Your task to perform on an android device: Open Google Chrome and open the bookmarks view Image 0: 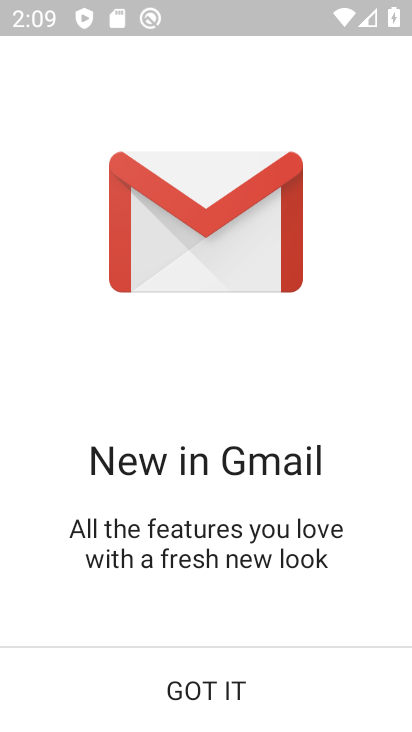
Step 0: click (204, 686)
Your task to perform on an android device: Open Google Chrome and open the bookmarks view Image 1: 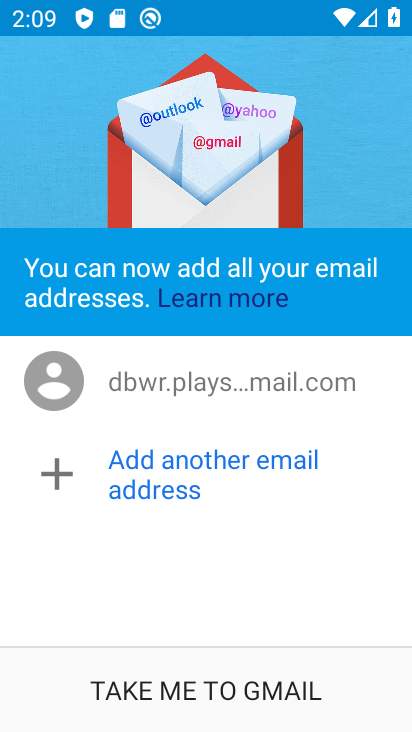
Step 1: click (225, 705)
Your task to perform on an android device: Open Google Chrome and open the bookmarks view Image 2: 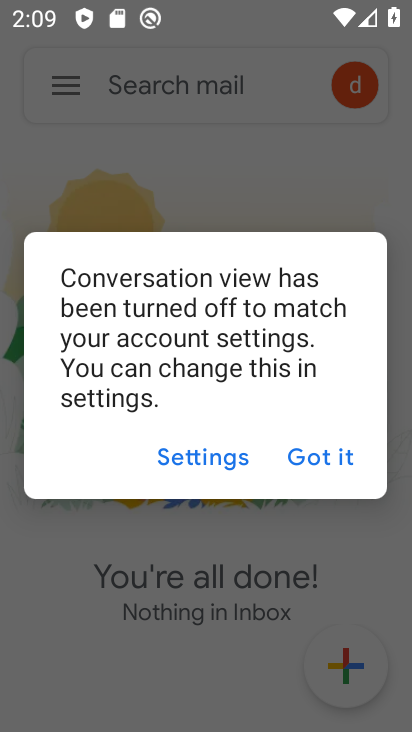
Step 2: click (306, 456)
Your task to perform on an android device: Open Google Chrome and open the bookmarks view Image 3: 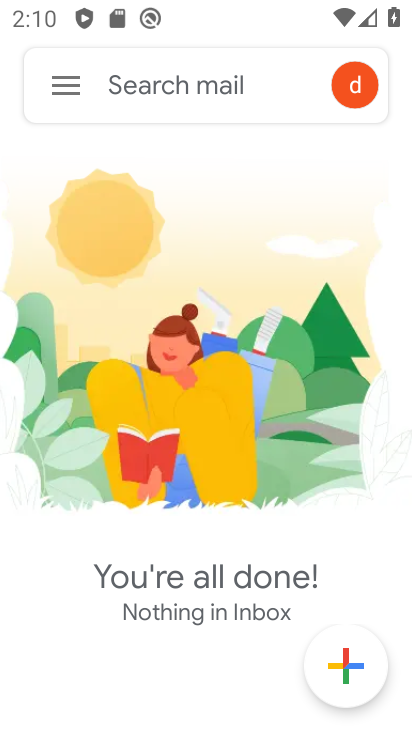
Step 3: click (76, 83)
Your task to perform on an android device: Open Google Chrome and open the bookmarks view Image 4: 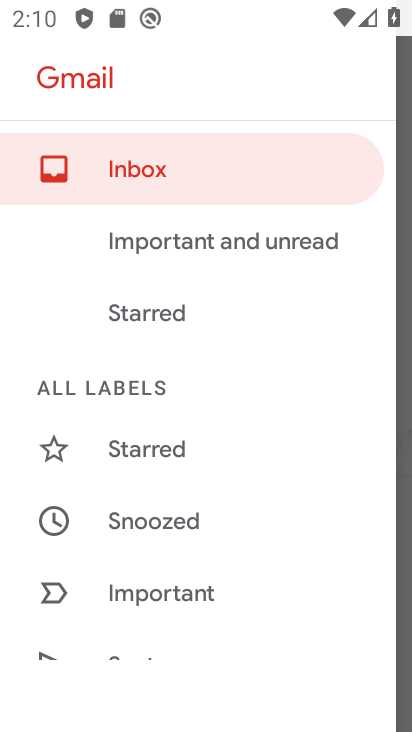
Step 4: drag from (227, 593) to (302, 185)
Your task to perform on an android device: Open Google Chrome and open the bookmarks view Image 5: 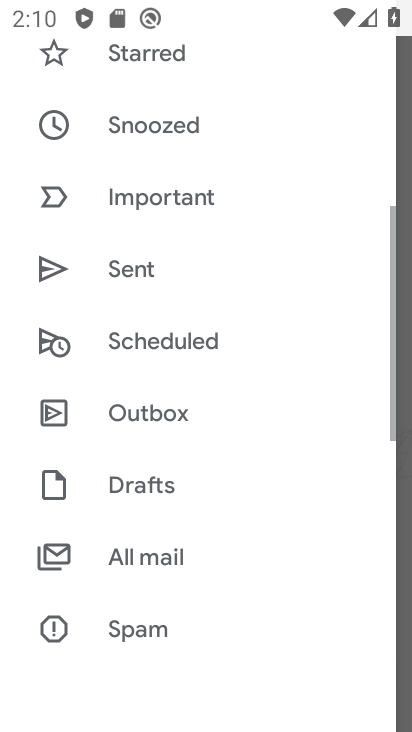
Step 5: drag from (236, 545) to (239, 191)
Your task to perform on an android device: Open Google Chrome and open the bookmarks view Image 6: 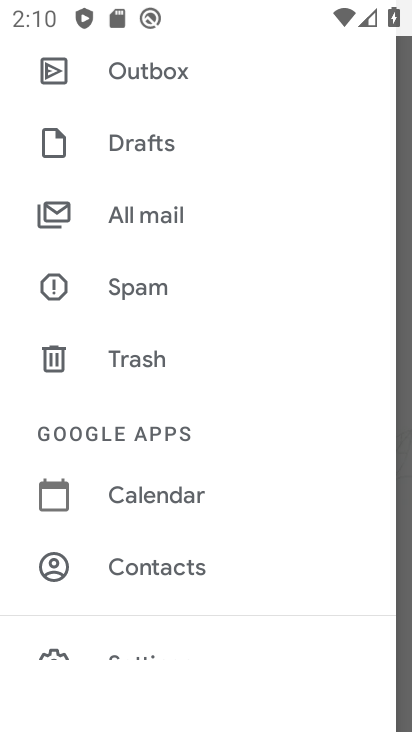
Step 6: press back button
Your task to perform on an android device: Open Google Chrome and open the bookmarks view Image 7: 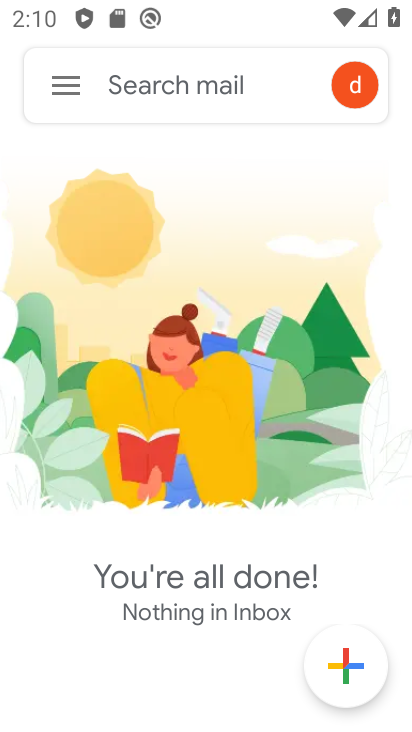
Step 7: press home button
Your task to perform on an android device: Open Google Chrome and open the bookmarks view Image 8: 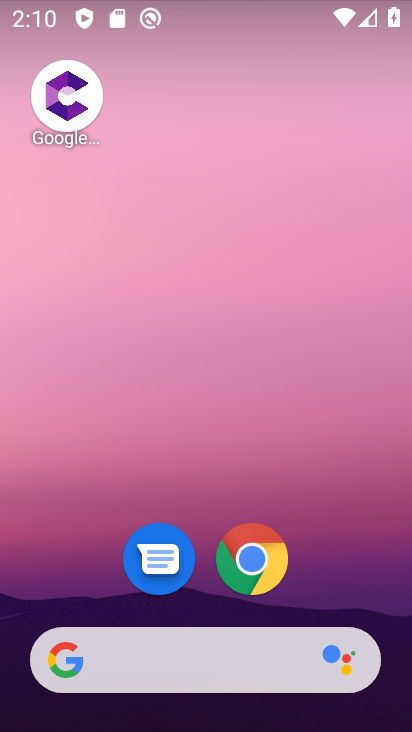
Step 8: click (263, 575)
Your task to perform on an android device: Open Google Chrome and open the bookmarks view Image 9: 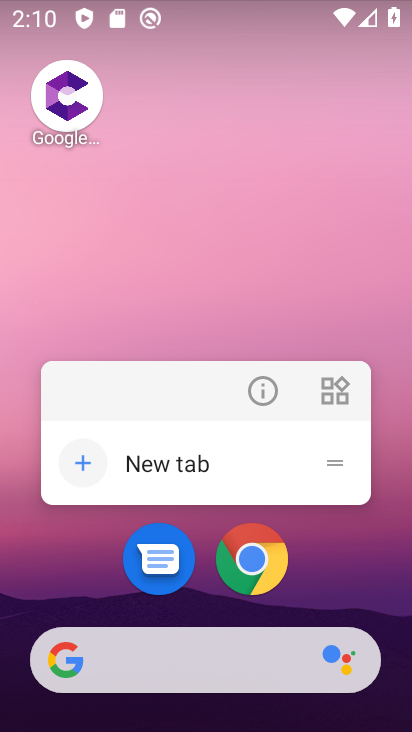
Step 9: click (254, 568)
Your task to perform on an android device: Open Google Chrome and open the bookmarks view Image 10: 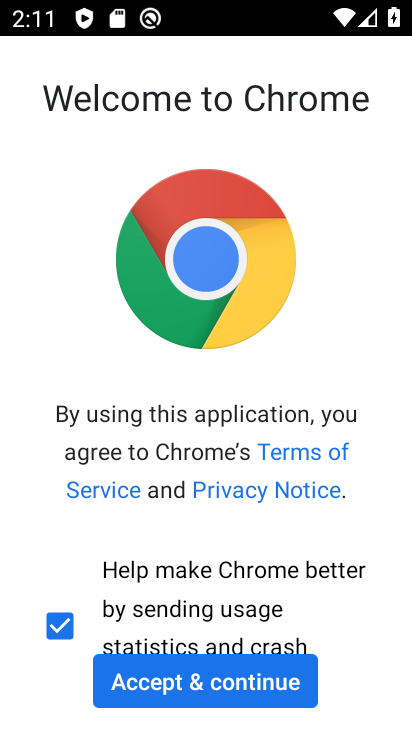
Step 10: click (225, 682)
Your task to perform on an android device: Open Google Chrome and open the bookmarks view Image 11: 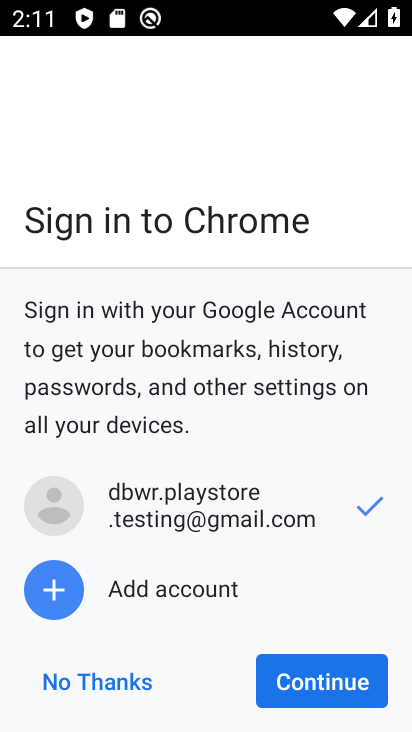
Step 11: click (311, 671)
Your task to perform on an android device: Open Google Chrome and open the bookmarks view Image 12: 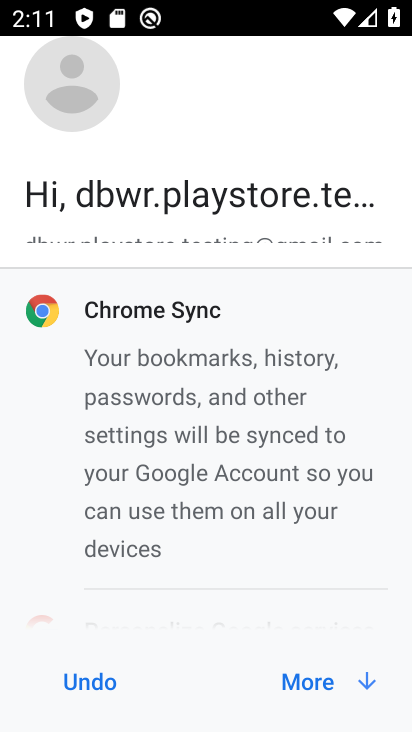
Step 12: click (297, 685)
Your task to perform on an android device: Open Google Chrome and open the bookmarks view Image 13: 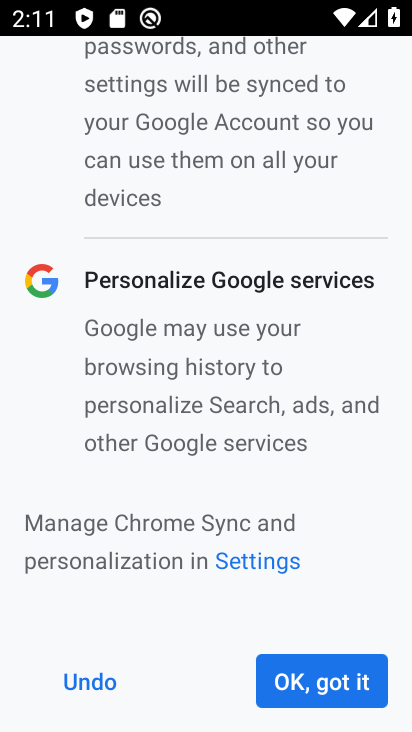
Step 13: click (304, 684)
Your task to perform on an android device: Open Google Chrome and open the bookmarks view Image 14: 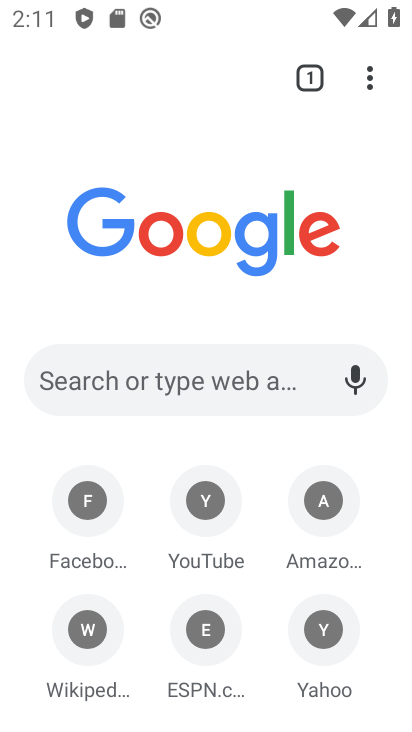
Step 14: click (366, 73)
Your task to perform on an android device: Open Google Chrome and open the bookmarks view Image 15: 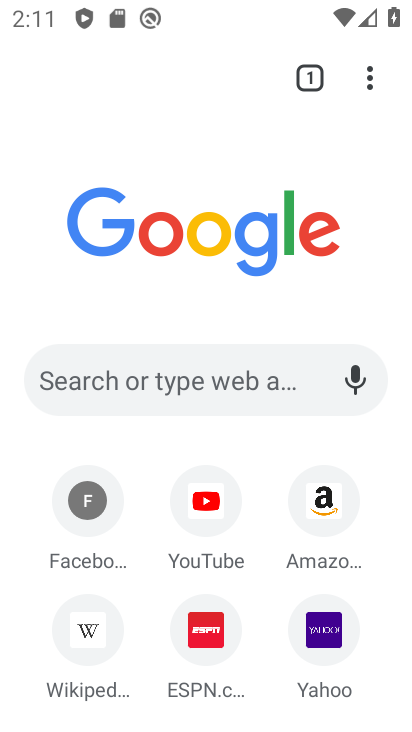
Step 15: click (372, 80)
Your task to perform on an android device: Open Google Chrome and open the bookmarks view Image 16: 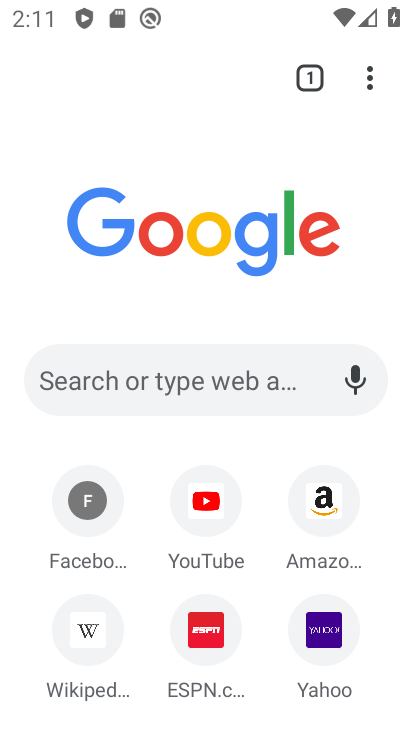
Step 16: click (372, 80)
Your task to perform on an android device: Open Google Chrome and open the bookmarks view Image 17: 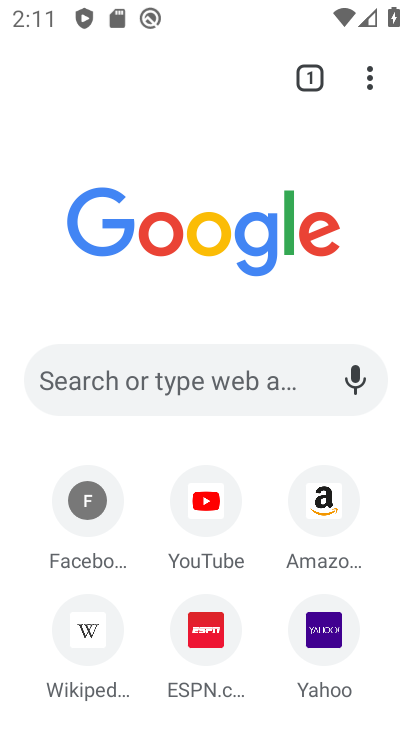
Step 17: click (367, 78)
Your task to perform on an android device: Open Google Chrome and open the bookmarks view Image 18: 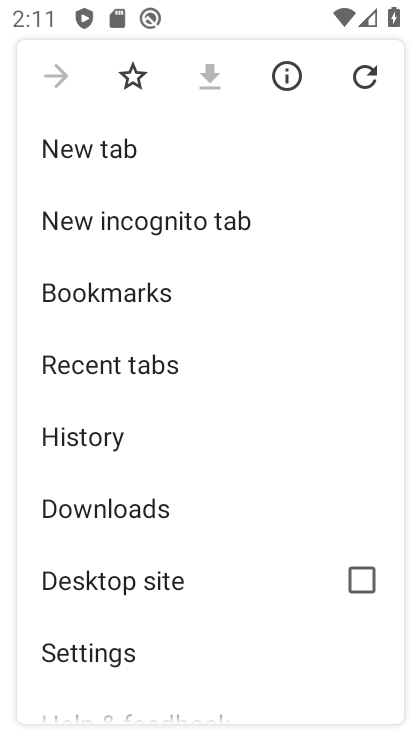
Step 18: click (168, 299)
Your task to perform on an android device: Open Google Chrome and open the bookmarks view Image 19: 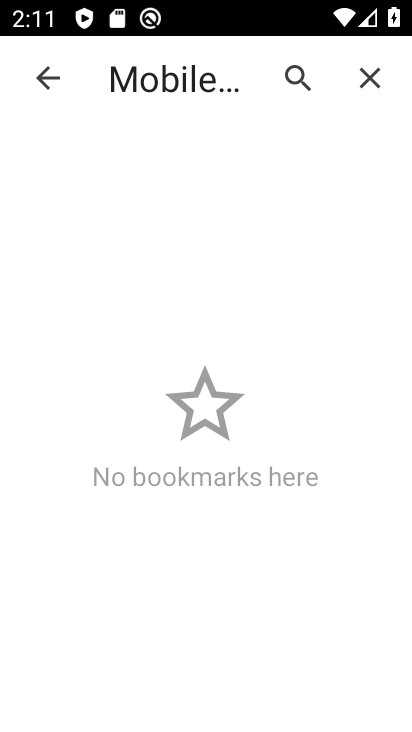
Step 19: task complete